Your task to perform on an android device: toggle improve location accuracy Image 0: 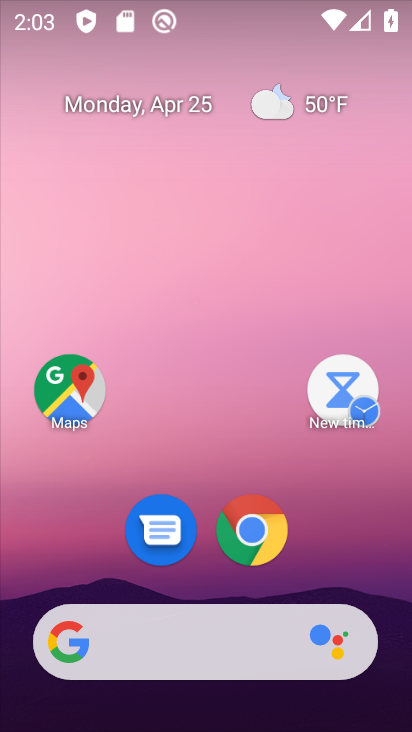
Step 0: drag from (195, 511) to (143, 0)
Your task to perform on an android device: toggle improve location accuracy Image 1: 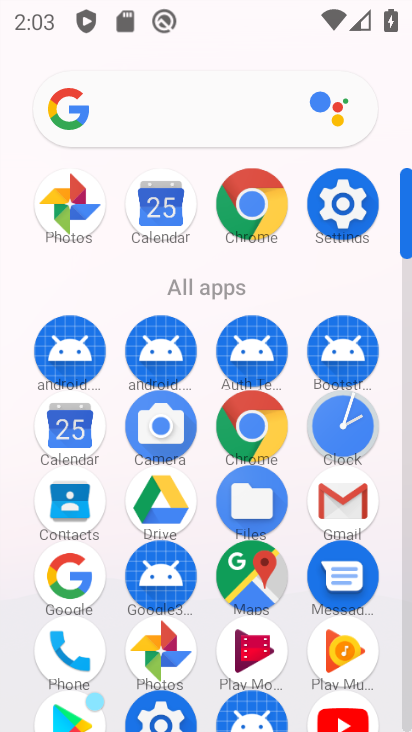
Step 1: click (337, 213)
Your task to perform on an android device: toggle improve location accuracy Image 2: 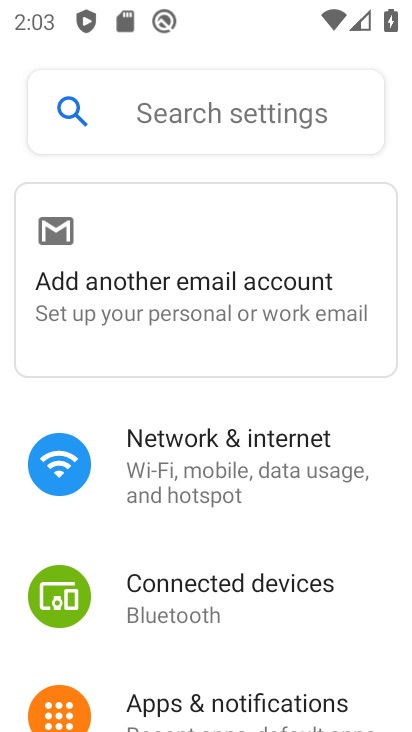
Step 2: drag from (291, 610) to (238, 153)
Your task to perform on an android device: toggle improve location accuracy Image 3: 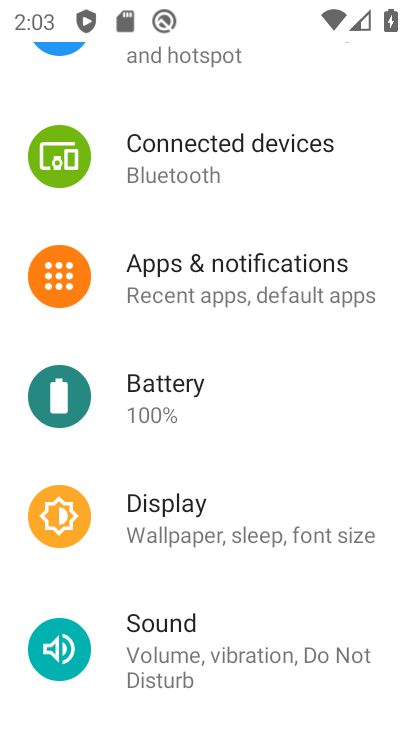
Step 3: drag from (270, 647) to (221, 207)
Your task to perform on an android device: toggle improve location accuracy Image 4: 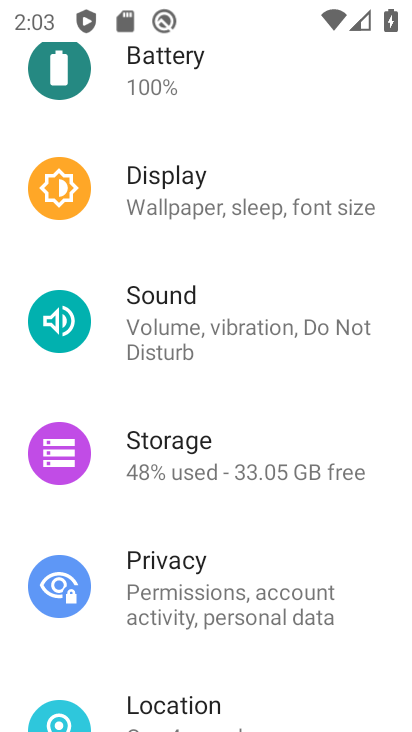
Step 4: click (152, 700)
Your task to perform on an android device: toggle improve location accuracy Image 5: 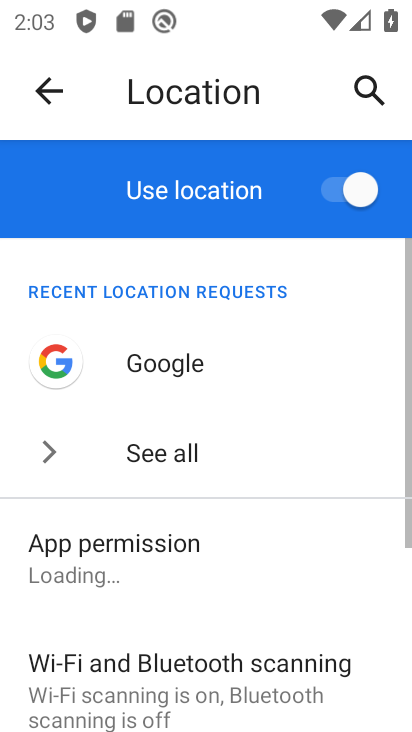
Step 5: drag from (196, 697) to (146, 389)
Your task to perform on an android device: toggle improve location accuracy Image 6: 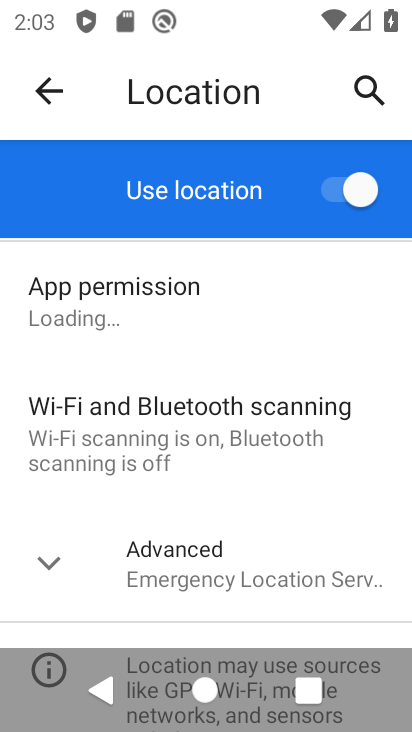
Step 6: click (220, 569)
Your task to perform on an android device: toggle improve location accuracy Image 7: 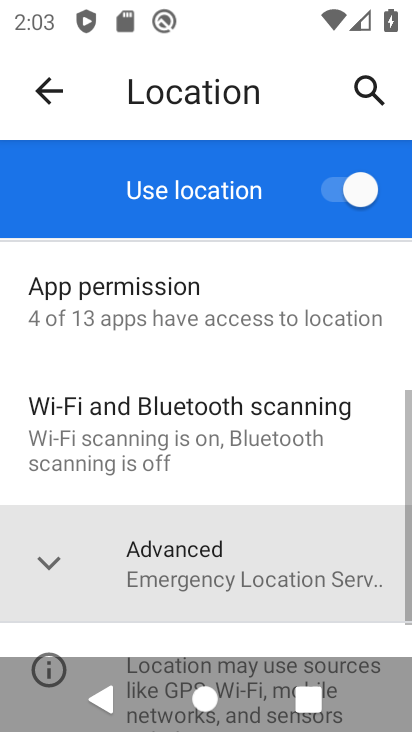
Step 7: drag from (219, 569) to (179, 148)
Your task to perform on an android device: toggle improve location accuracy Image 8: 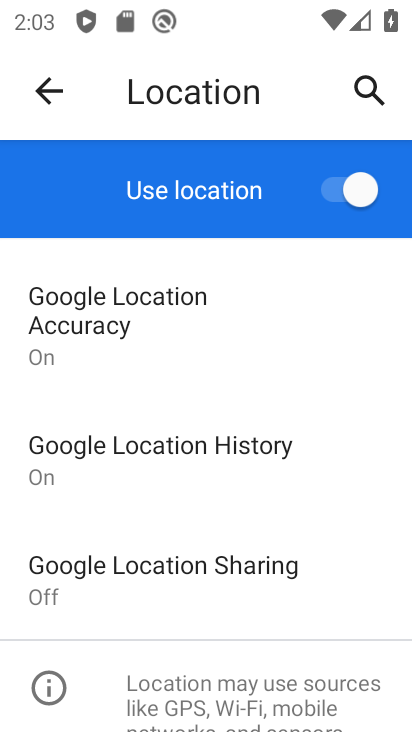
Step 8: click (156, 328)
Your task to perform on an android device: toggle improve location accuracy Image 9: 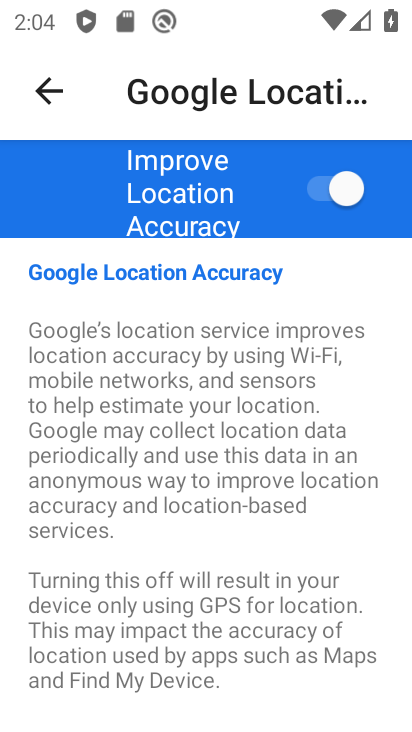
Step 9: click (354, 186)
Your task to perform on an android device: toggle improve location accuracy Image 10: 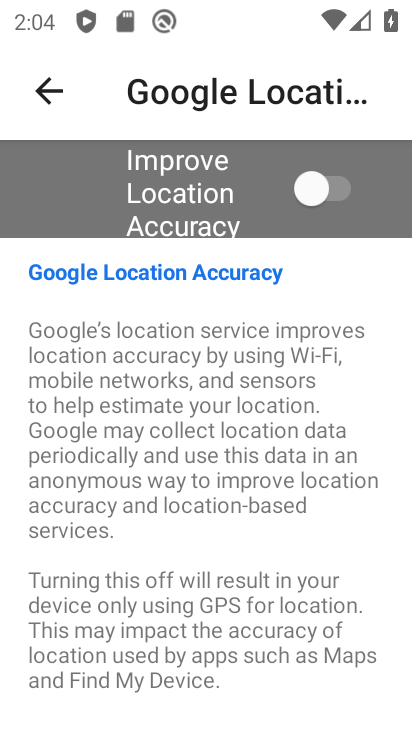
Step 10: task complete